Your task to perform on an android device: allow cookies in the chrome app Image 0: 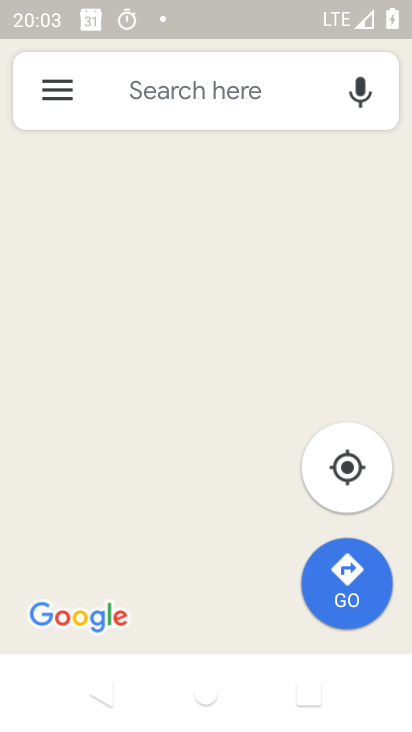
Step 0: drag from (327, 524) to (238, 152)
Your task to perform on an android device: allow cookies in the chrome app Image 1: 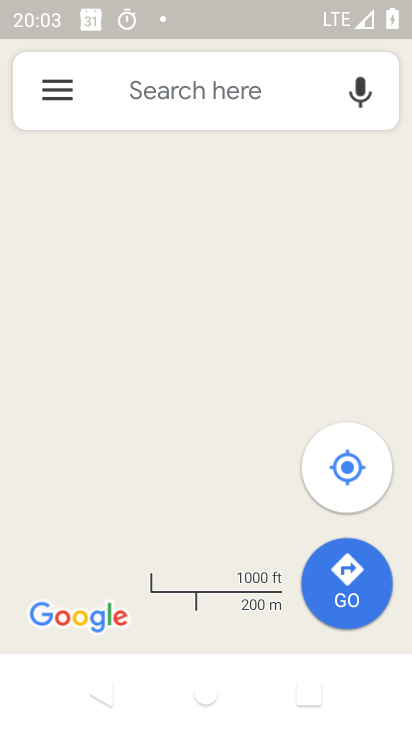
Step 1: press home button
Your task to perform on an android device: allow cookies in the chrome app Image 2: 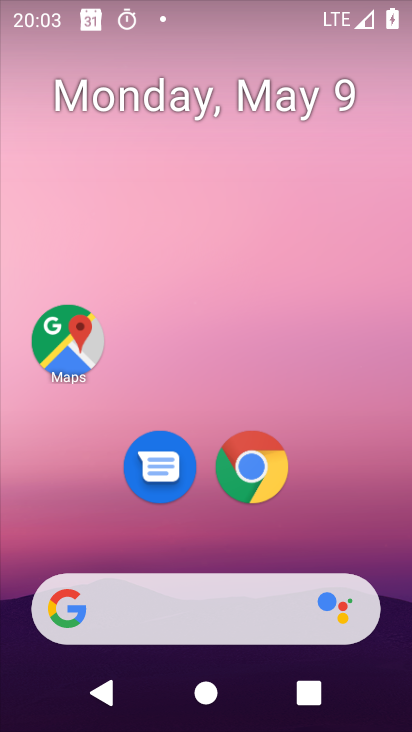
Step 2: click (257, 468)
Your task to perform on an android device: allow cookies in the chrome app Image 3: 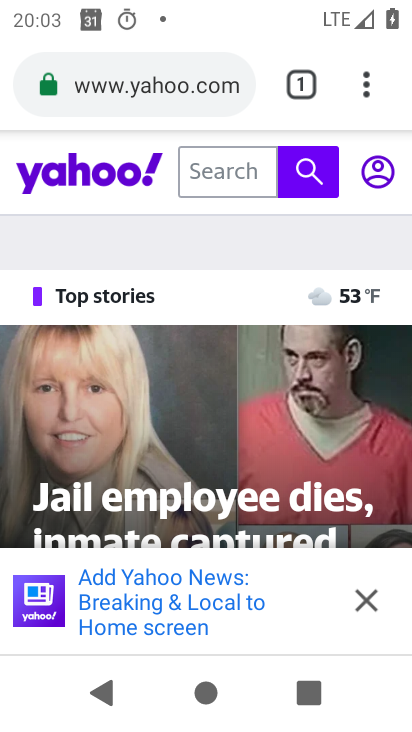
Step 3: drag from (366, 81) to (186, 537)
Your task to perform on an android device: allow cookies in the chrome app Image 4: 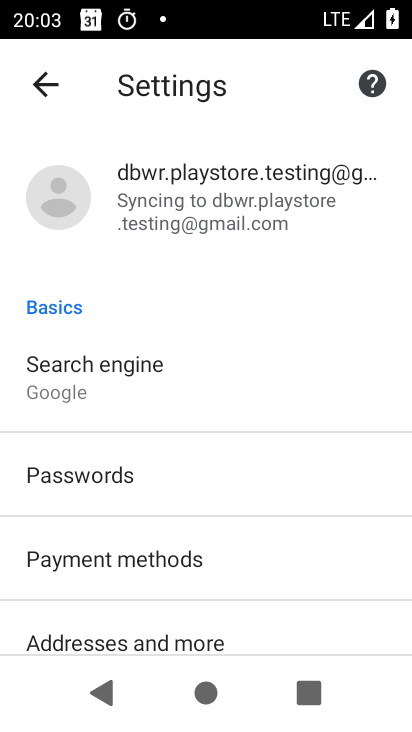
Step 4: drag from (215, 629) to (123, 181)
Your task to perform on an android device: allow cookies in the chrome app Image 5: 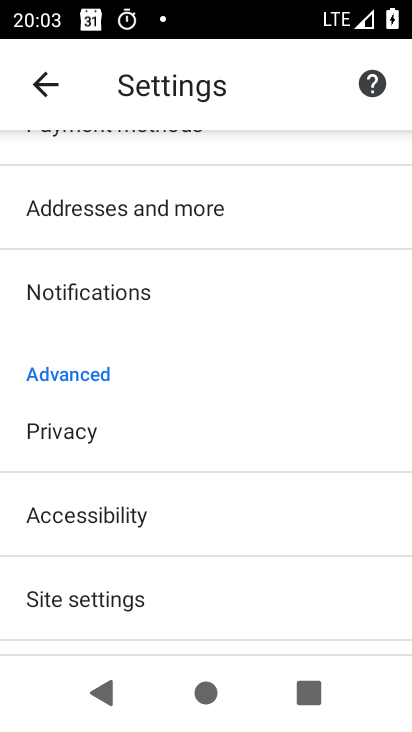
Step 5: drag from (129, 608) to (164, 378)
Your task to perform on an android device: allow cookies in the chrome app Image 6: 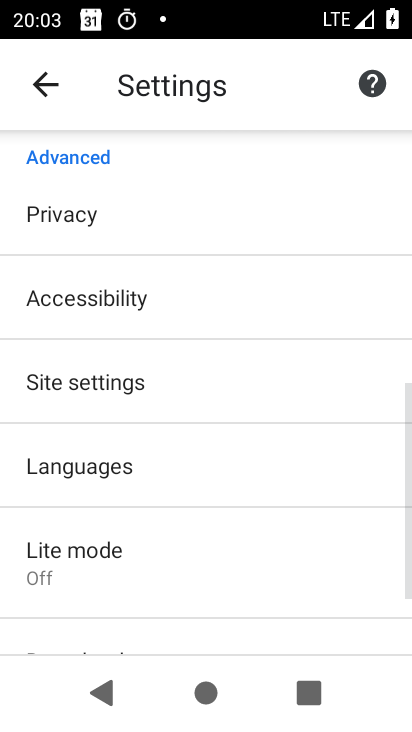
Step 6: click (162, 395)
Your task to perform on an android device: allow cookies in the chrome app Image 7: 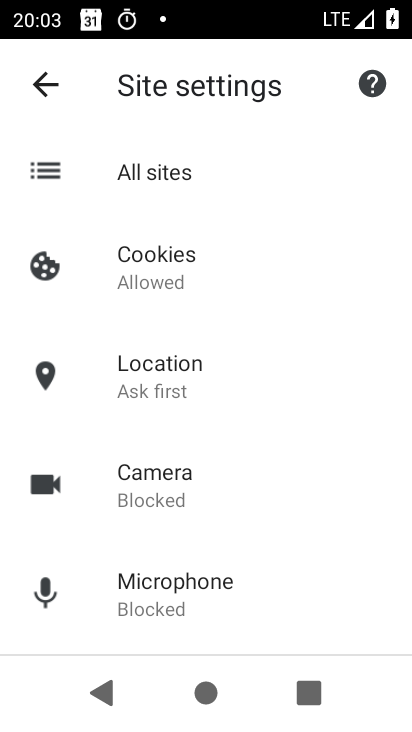
Step 7: click (201, 259)
Your task to perform on an android device: allow cookies in the chrome app Image 8: 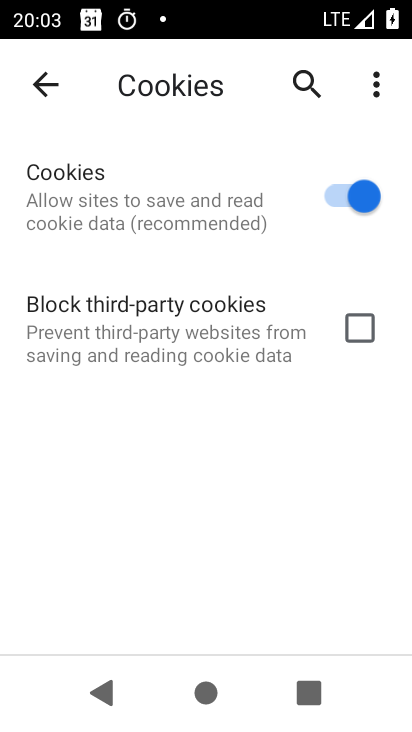
Step 8: task complete